Your task to perform on an android device: Search for "dell alienware" on bestbuy, select the first entry, and add it to the cart. Image 0: 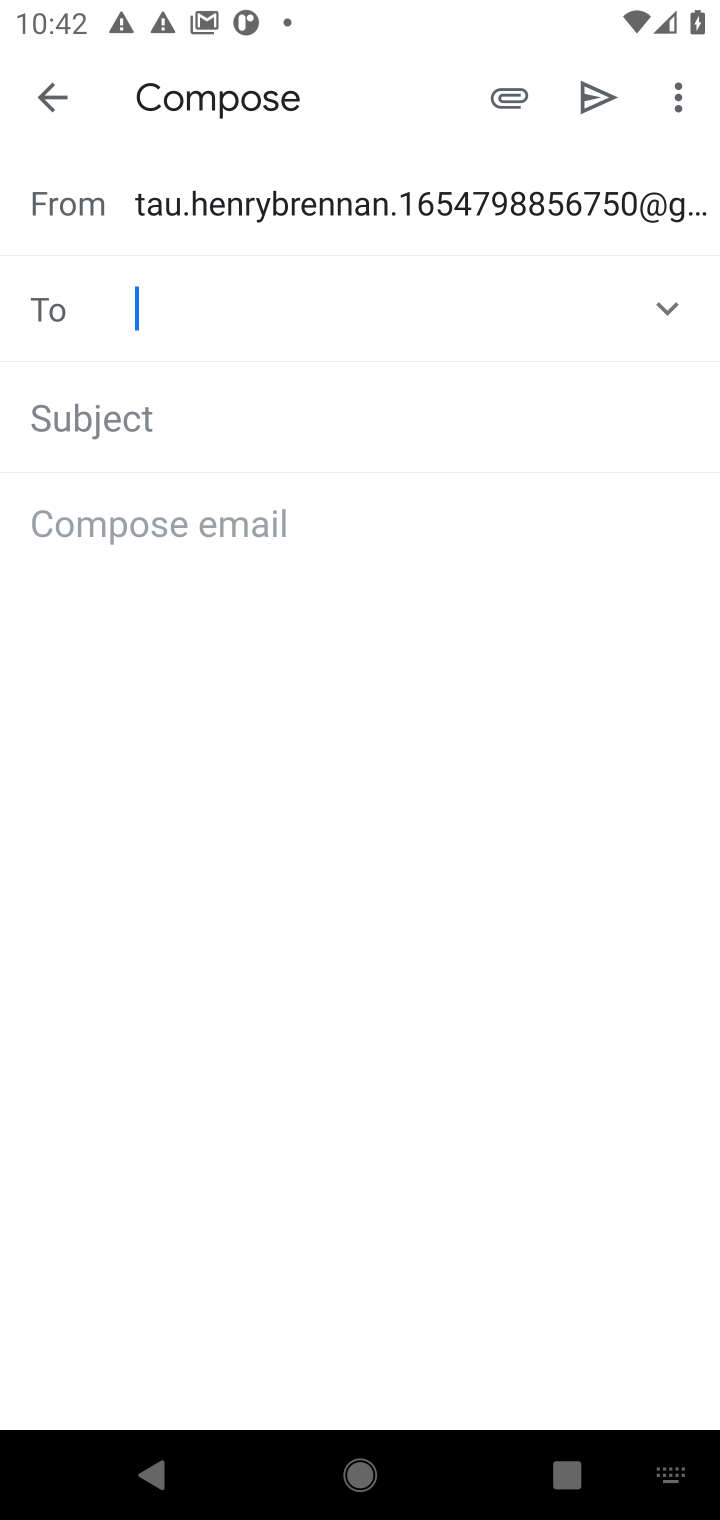
Step 0: press home button
Your task to perform on an android device: Search for "dell alienware" on bestbuy, select the first entry, and add it to the cart. Image 1: 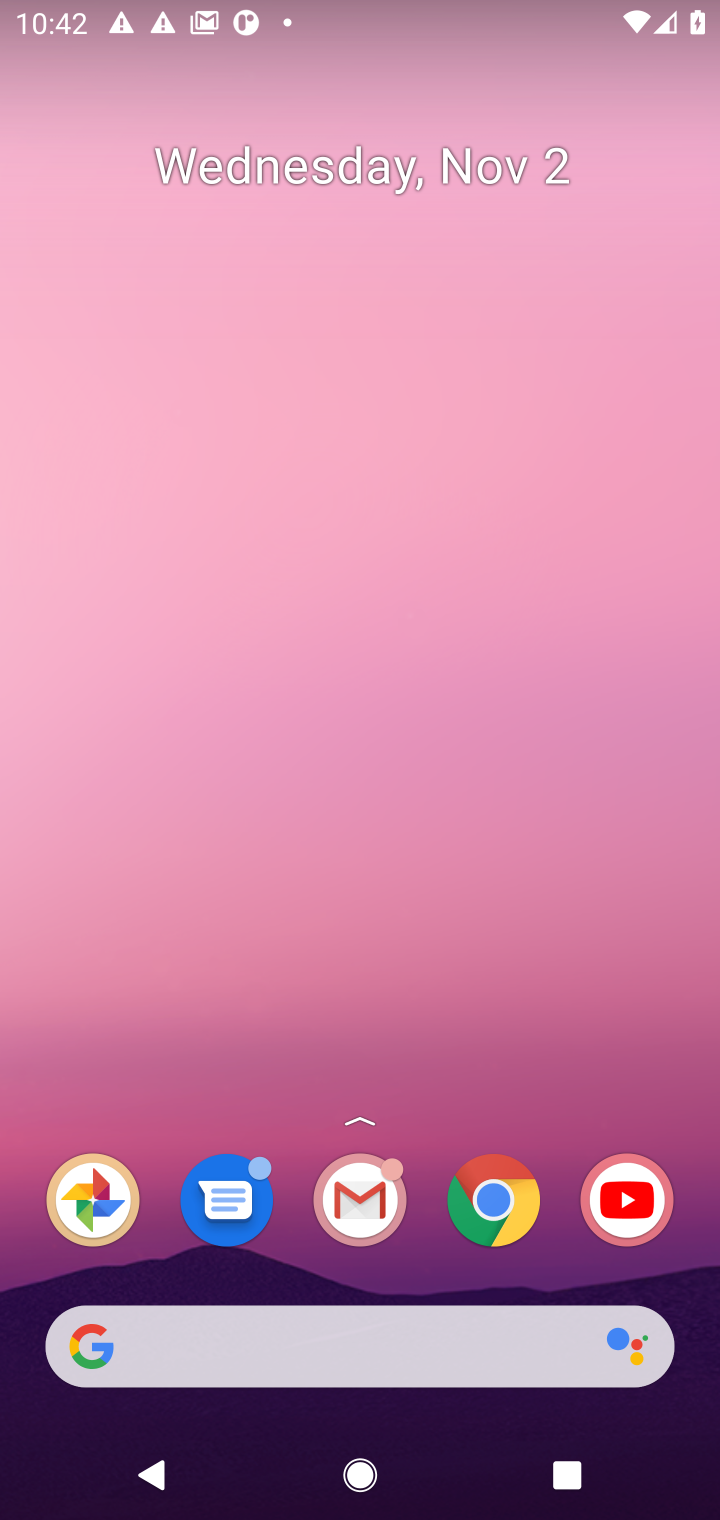
Step 1: click (520, 1216)
Your task to perform on an android device: Search for "dell alienware" on bestbuy, select the first entry, and add it to the cart. Image 2: 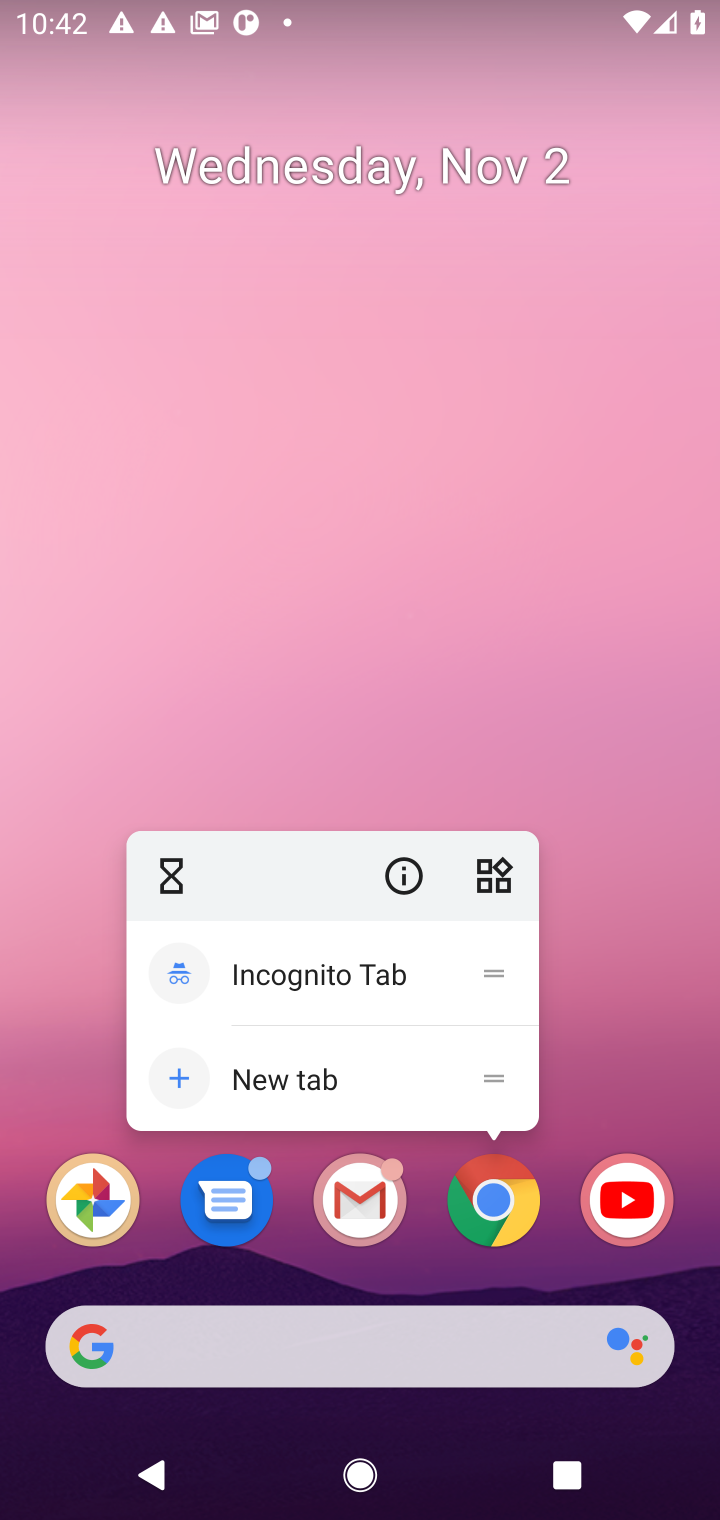
Step 2: click (519, 1215)
Your task to perform on an android device: Search for "dell alienware" on bestbuy, select the first entry, and add it to the cart. Image 3: 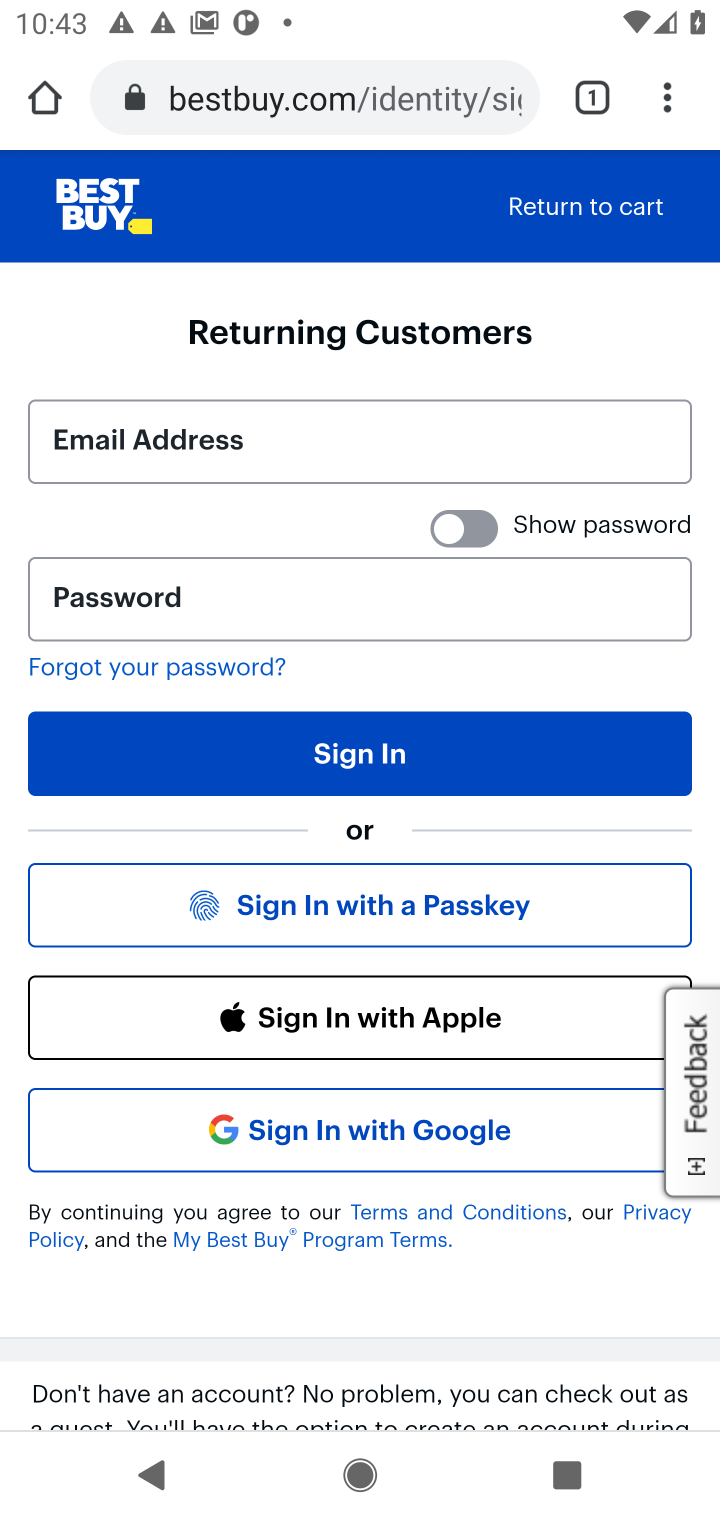
Step 3: click (421, 83)
Your task to perform on an android device: Search for "dell alienware" on bestbuy, select the first entry, and add it to the cart. Image 4: 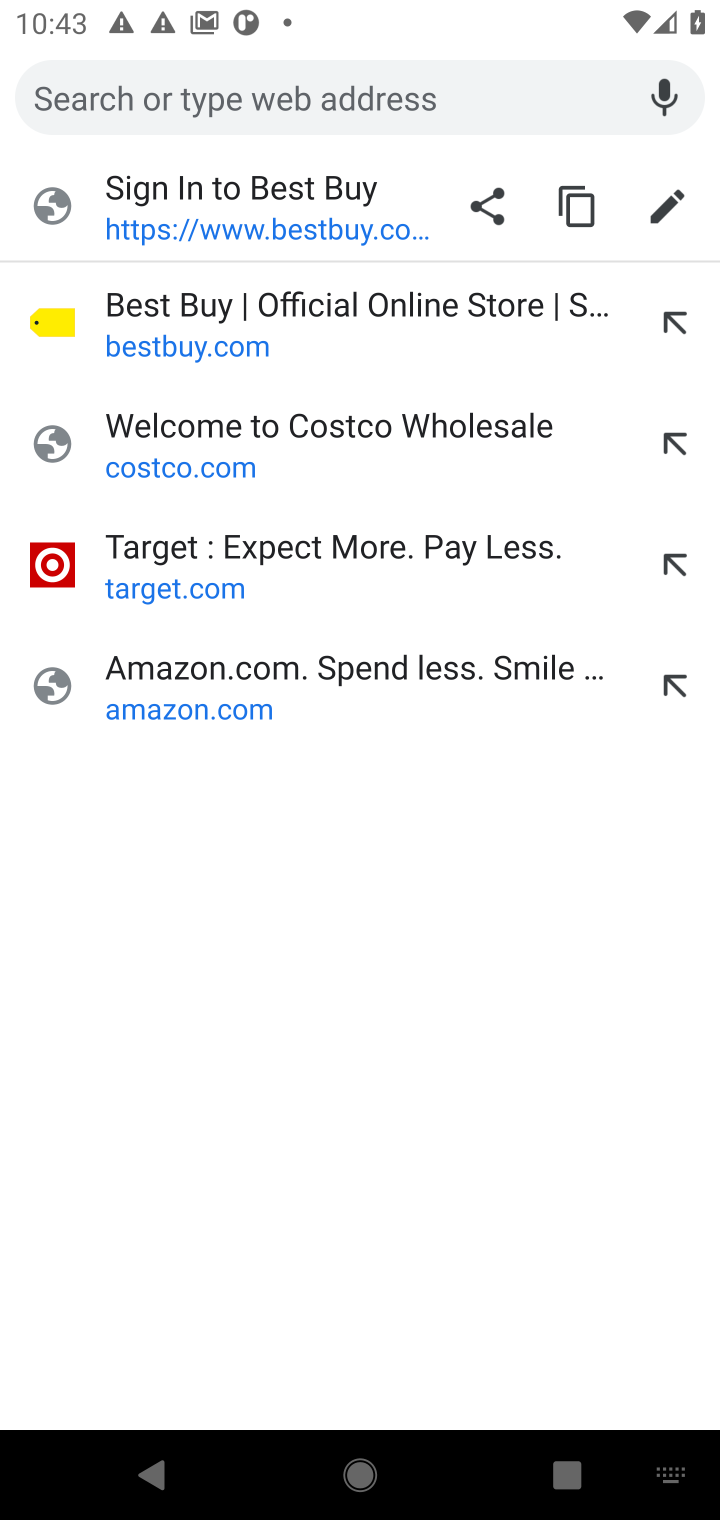
Step 4: click (183, 203)
Your task to perform on an android device: Search for "dell alienware" on bestbuy, select the first entry, and add it to the cart. Image 5: 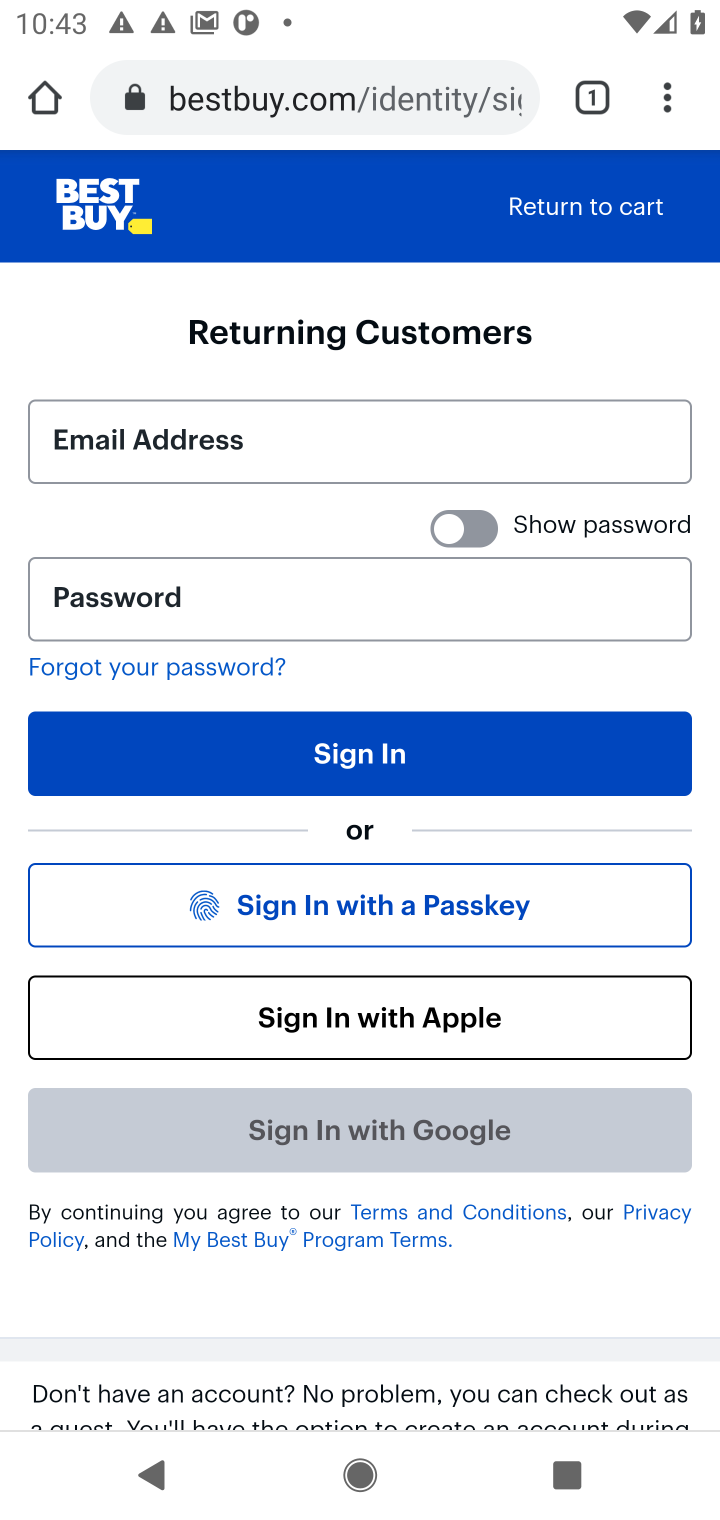
Step 5: press back button
Your task to perform on an android device: Search for "dell alienware" on bestbuy, select the first entry, and add it to the cart. Image 6: 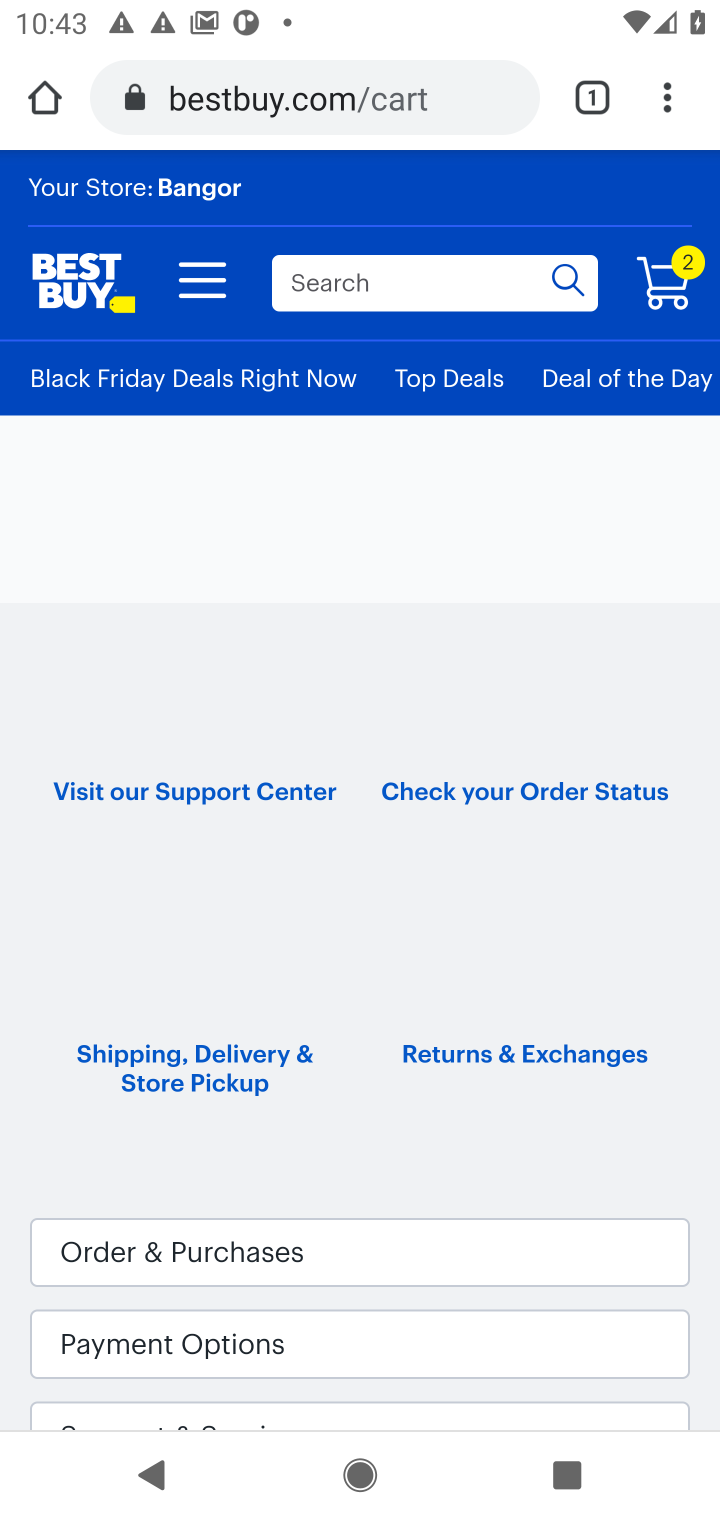
Step 6: click (429, 286)
Your task to perform on an android device: Search for "dell alienware" on bestbuy, select the first entry, and add it to the cart. Image 7: 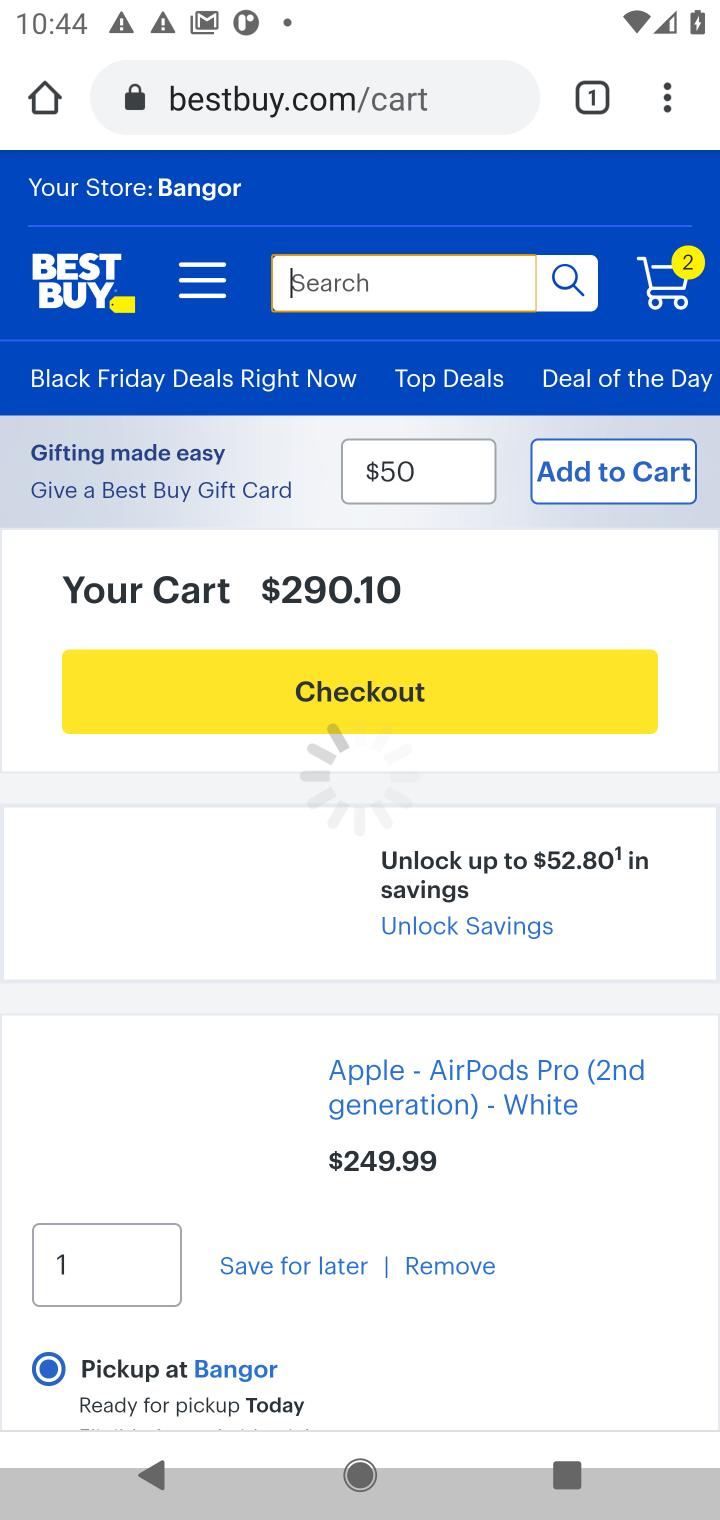
Step 7: click (405, 273)
Your task to perform on an android device: Search for "dell alienware" on bestbuy, select the first entry, and add it to the cart. Image 8: 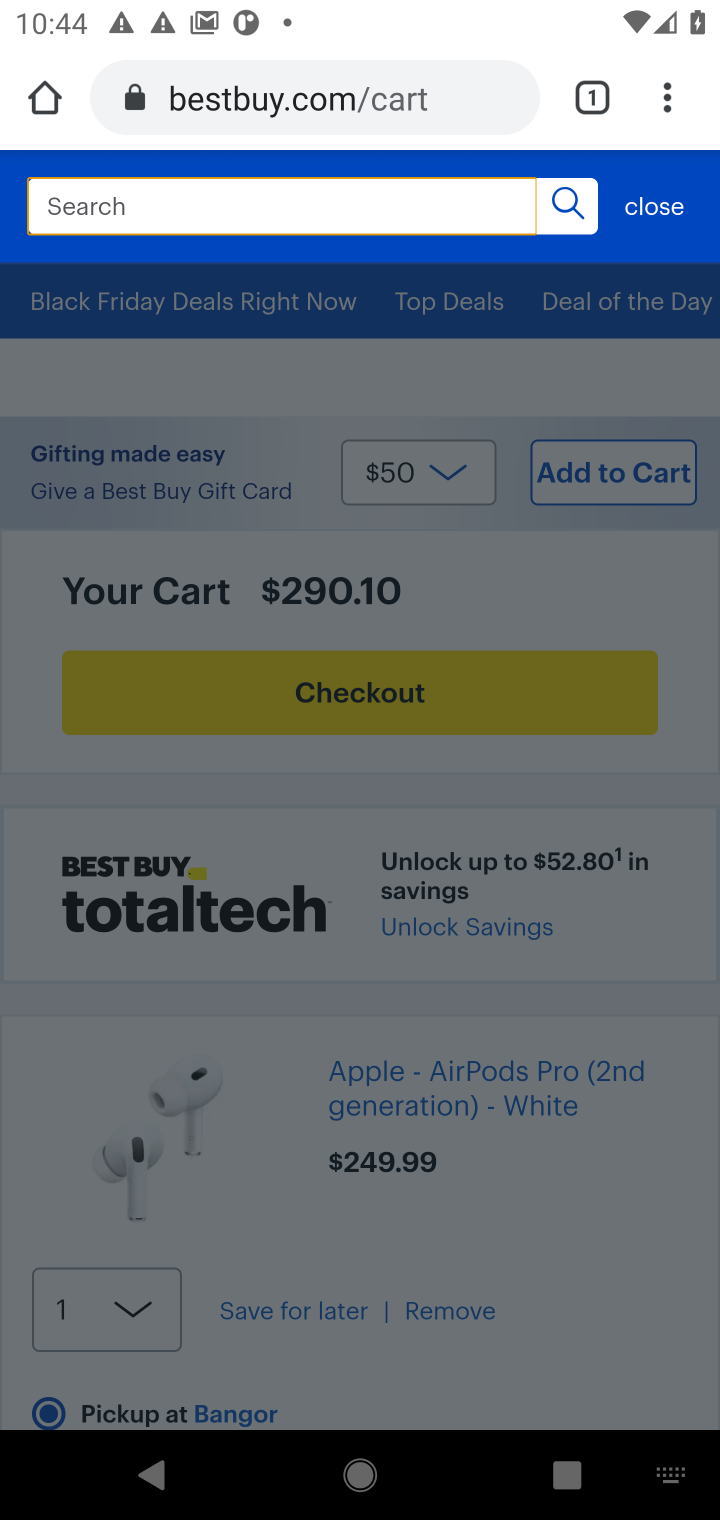
Step 8: type "dell alienware"
Your task to perform on an android device: Search for "dell alienware" on bestbuy, select the first entry, and add it to the cart. Image 9: 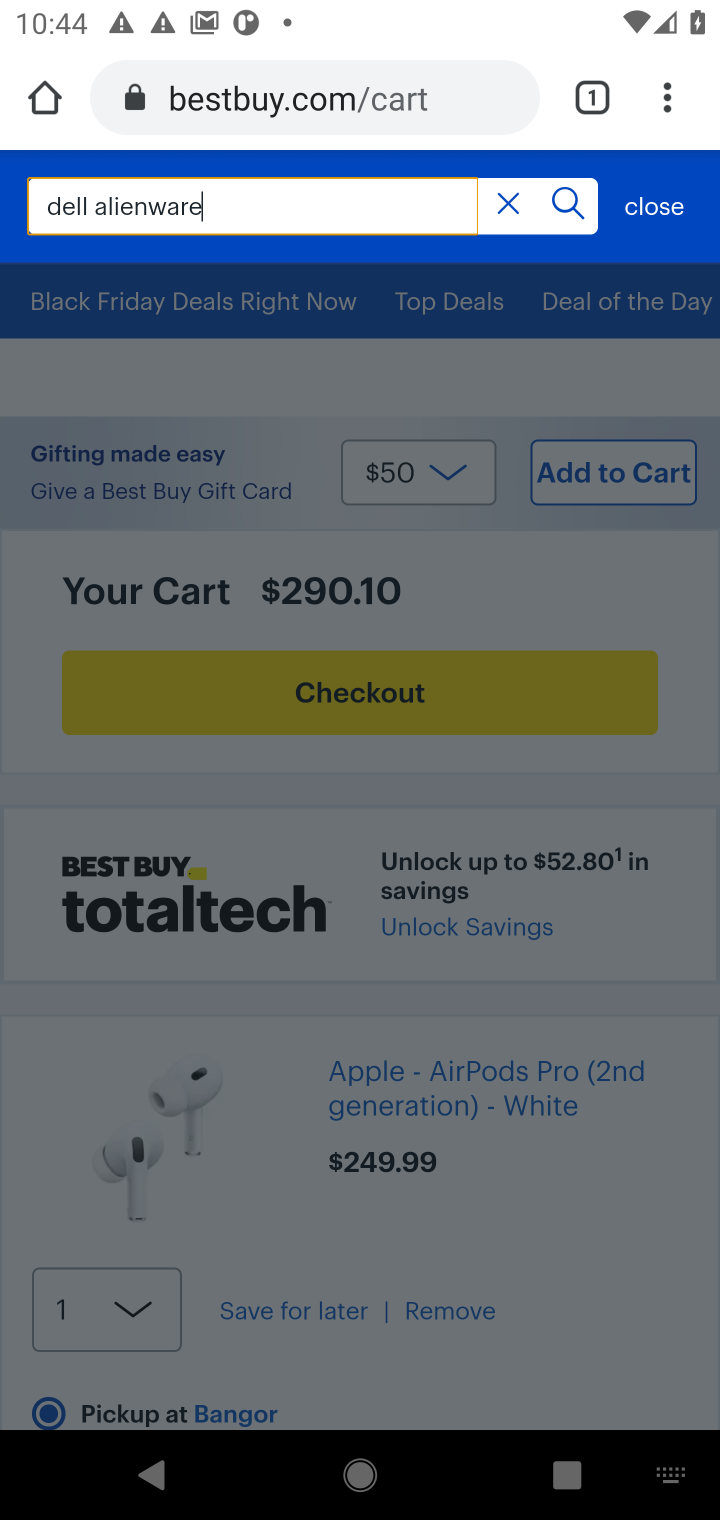
Step 9: press enter
Your task to perform on an android device: Search for "dell alienware" on bestbuy, select the first entry, and add it to the cart. Image 10: 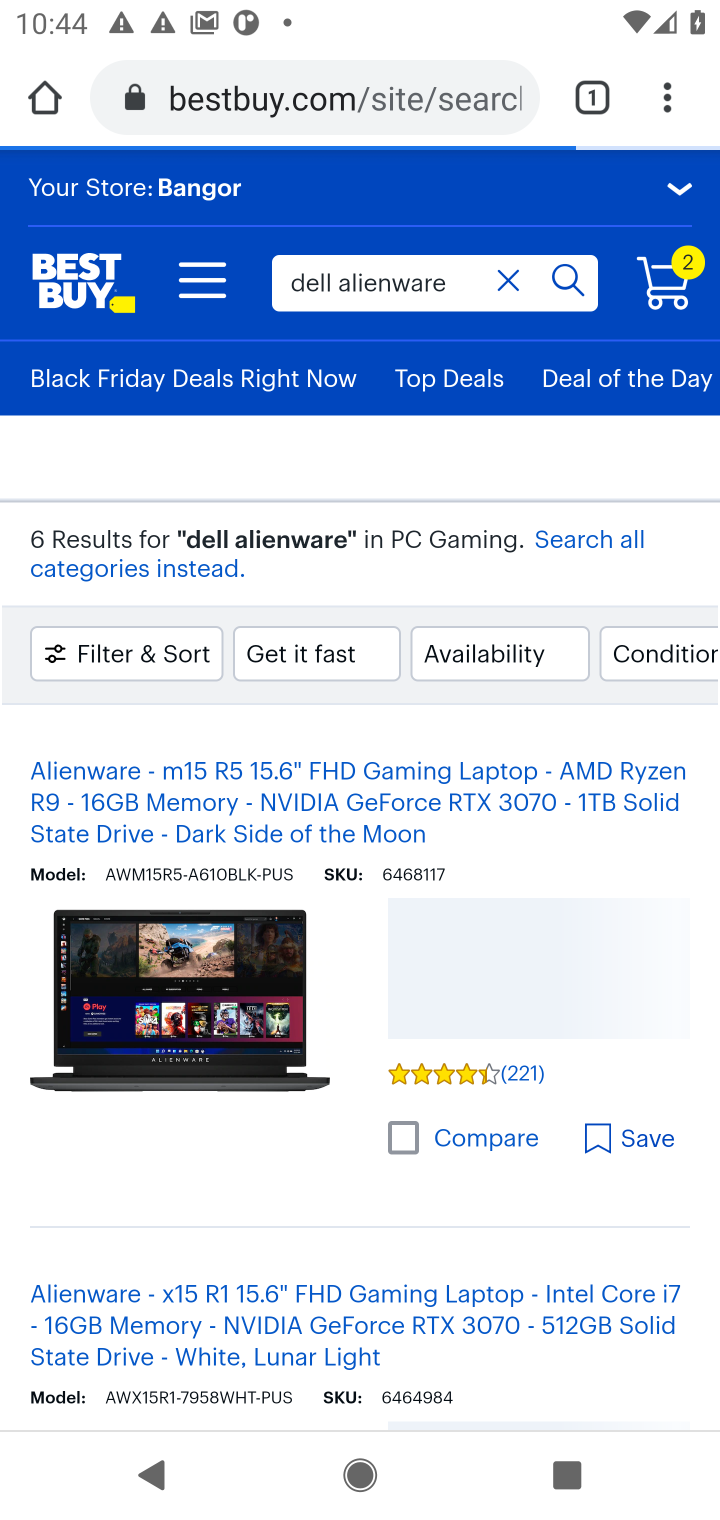
Step 10: drag from (454, 1270) to (456, 581)
Your task to perform on an android device: Search for "dell alienware" on bestbuy, select the first entry, and add it to the cart. Image 11: 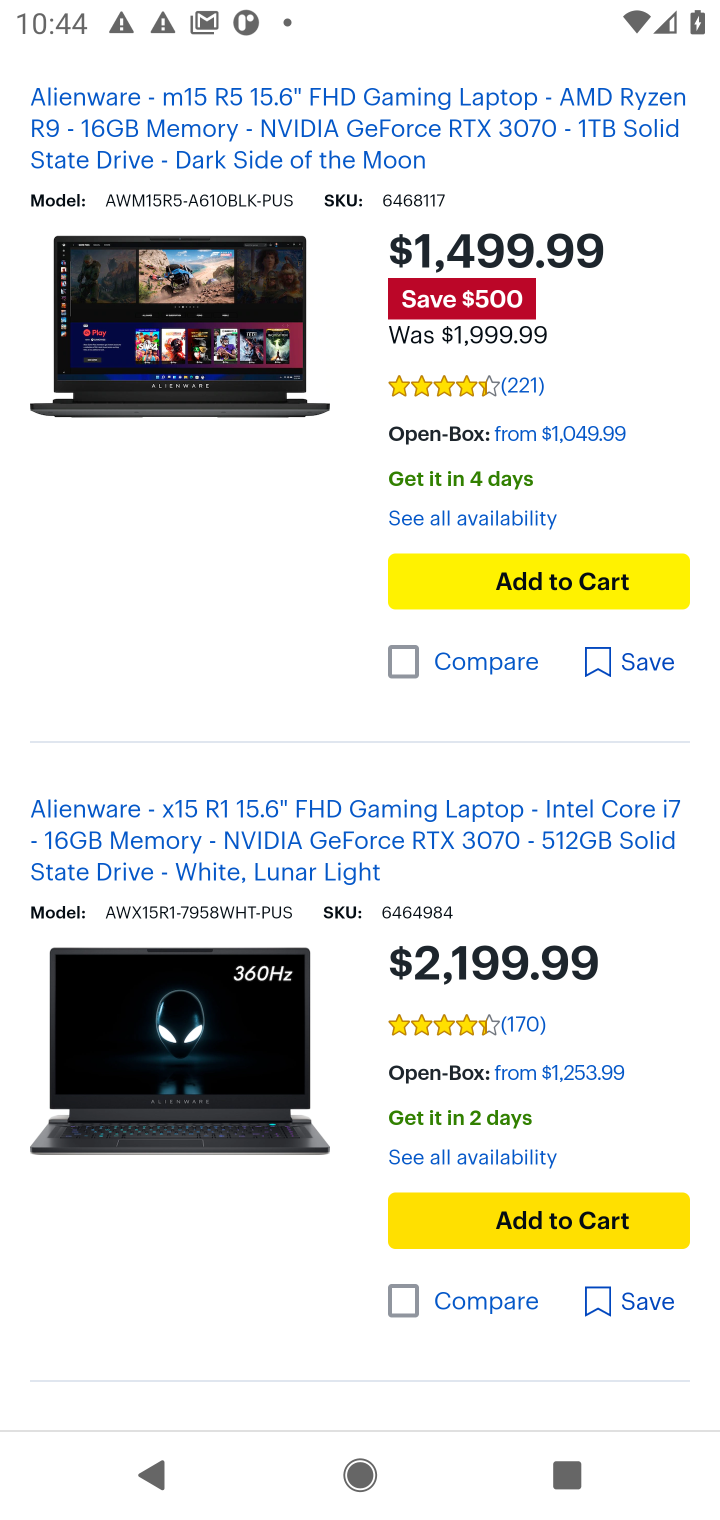
Step 11: drag from (456, 904) to (456, 426)
Your task to perform on an android device: Search for "dell alienware" on bestbuy, select the first entry, and add it to the cart. Image 12: 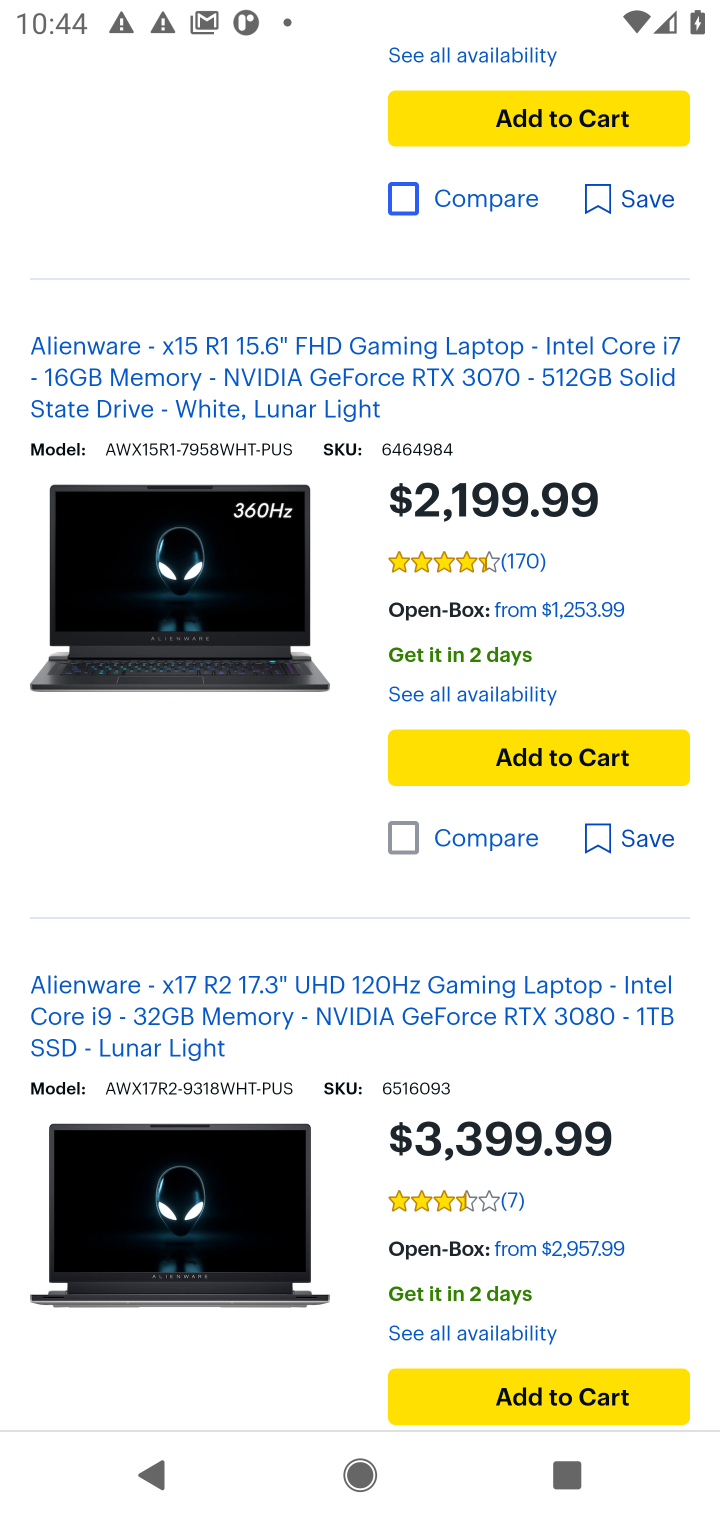
Step 12: drag from (489, 1093) to (526, 314)
Your task to perform on an android device: Search for "dell alienware" on bestbuy, select the first entry, and add it to the cart. Image 13: 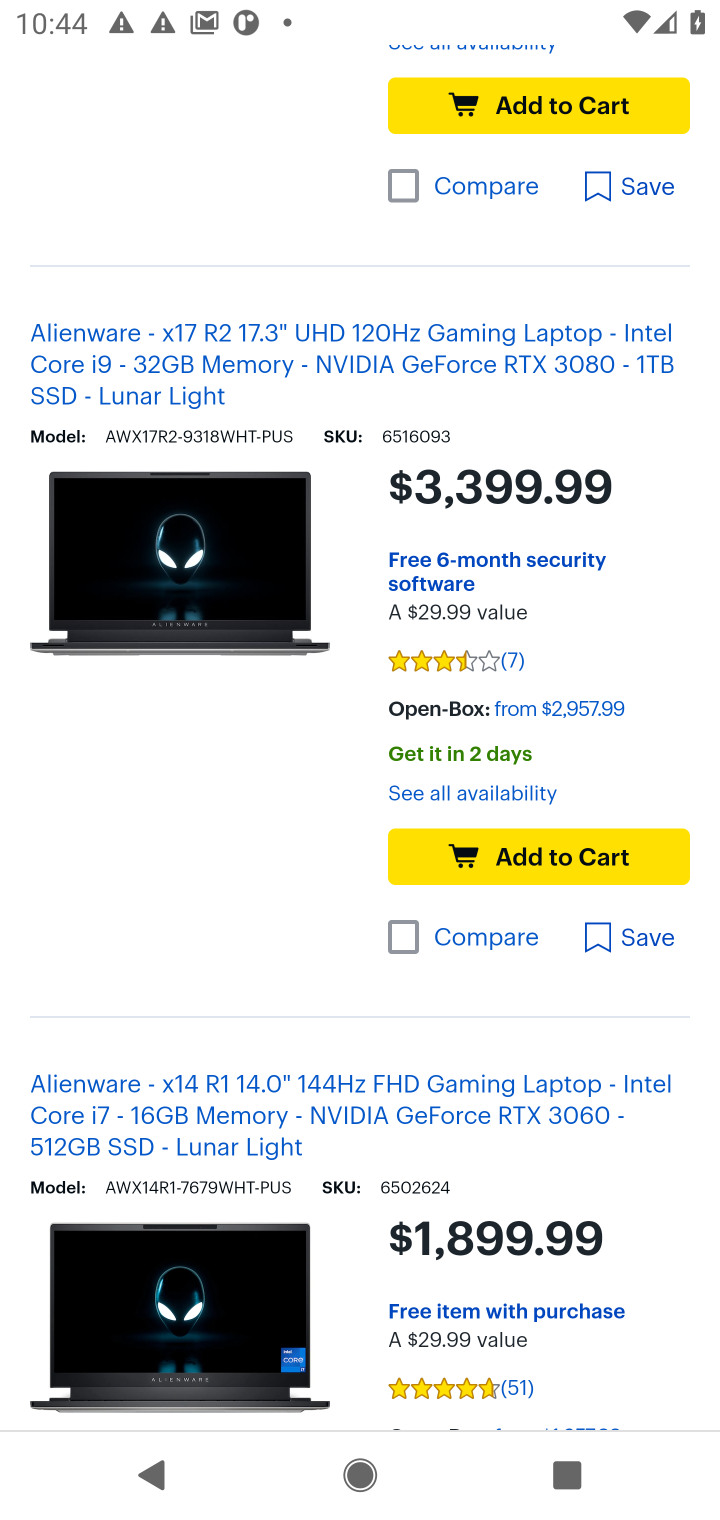
Step 13: drag from (355, 1099) to (395, 434)
Your task to perform on an android device: Search for "dell alienware" on bestbuy, select the first entry, and add it to the cart. Image 14: 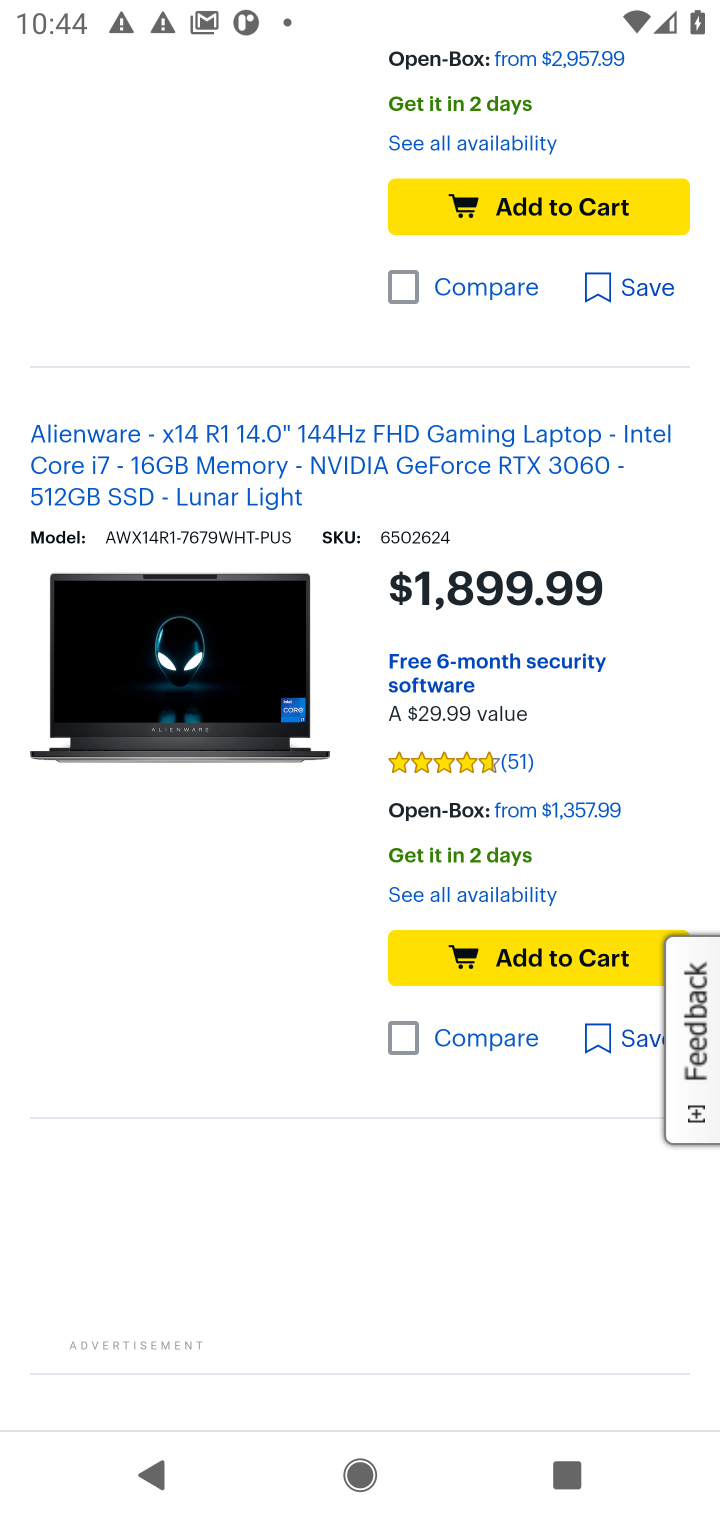
Step 14: drag from (267, 990) to (302, 471)
Your task to perform on an android device: Search for "dell alienware" on bestbuy, select the first entry, and add it to the cart. Image 15: 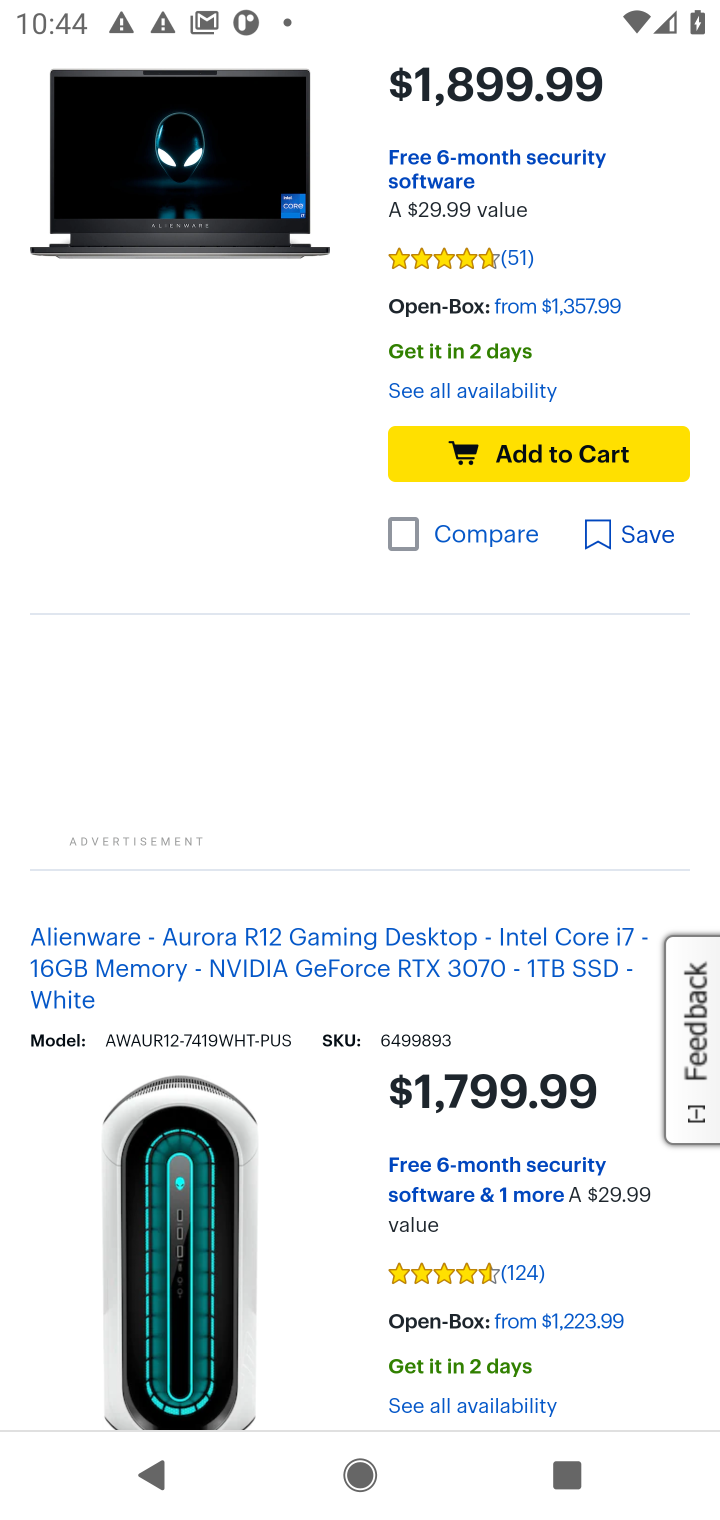
Step 15: drag from (218, 662) to (342, 1167)
Your task to perform on an android device: Search for "dell alienware" on bestbuy, select the first entry, and add it to the cart. Image 16: 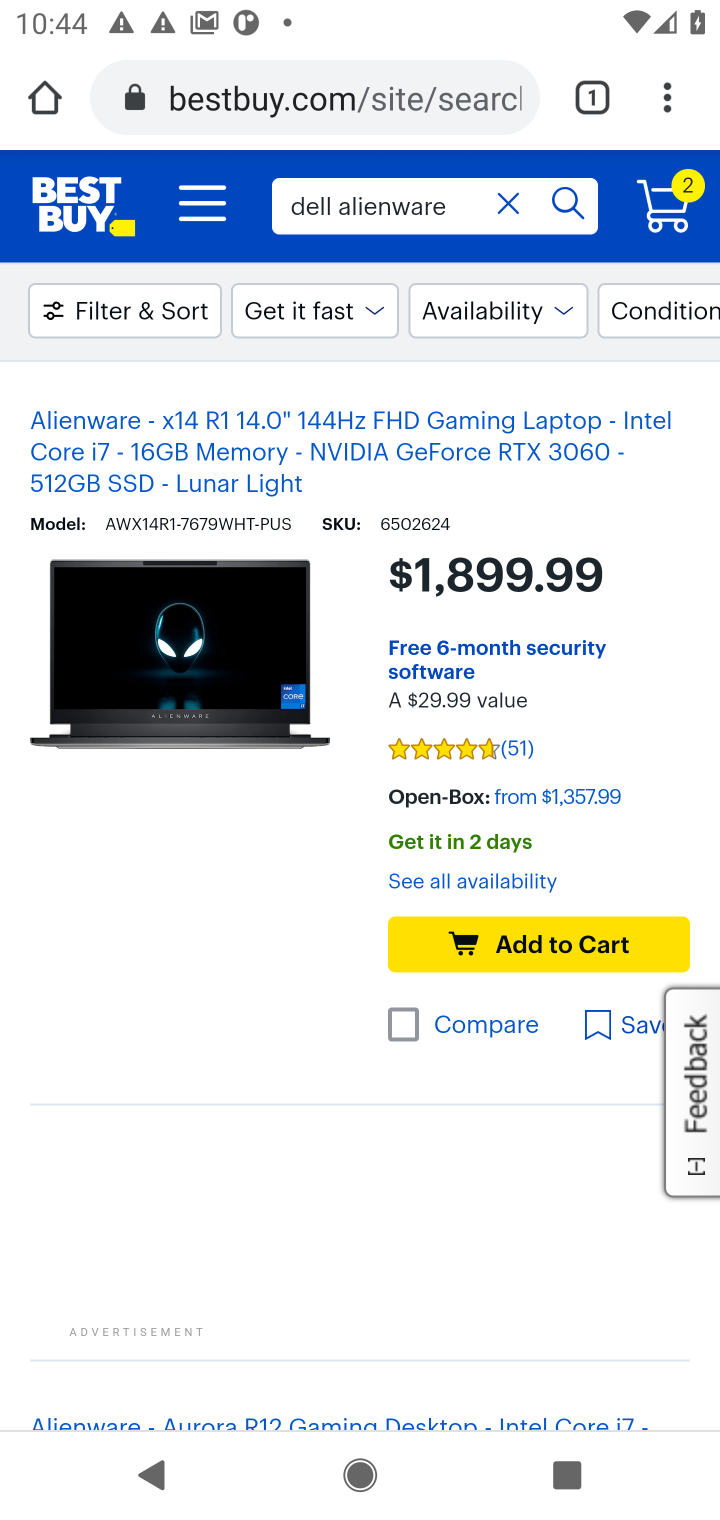
Step 16: drag from (276, 447) to (327, 1225)
Your task to perform on an android device: Search for "dell alienware" on bestbuy, select the first entry, and add it to the cart. Image 17: 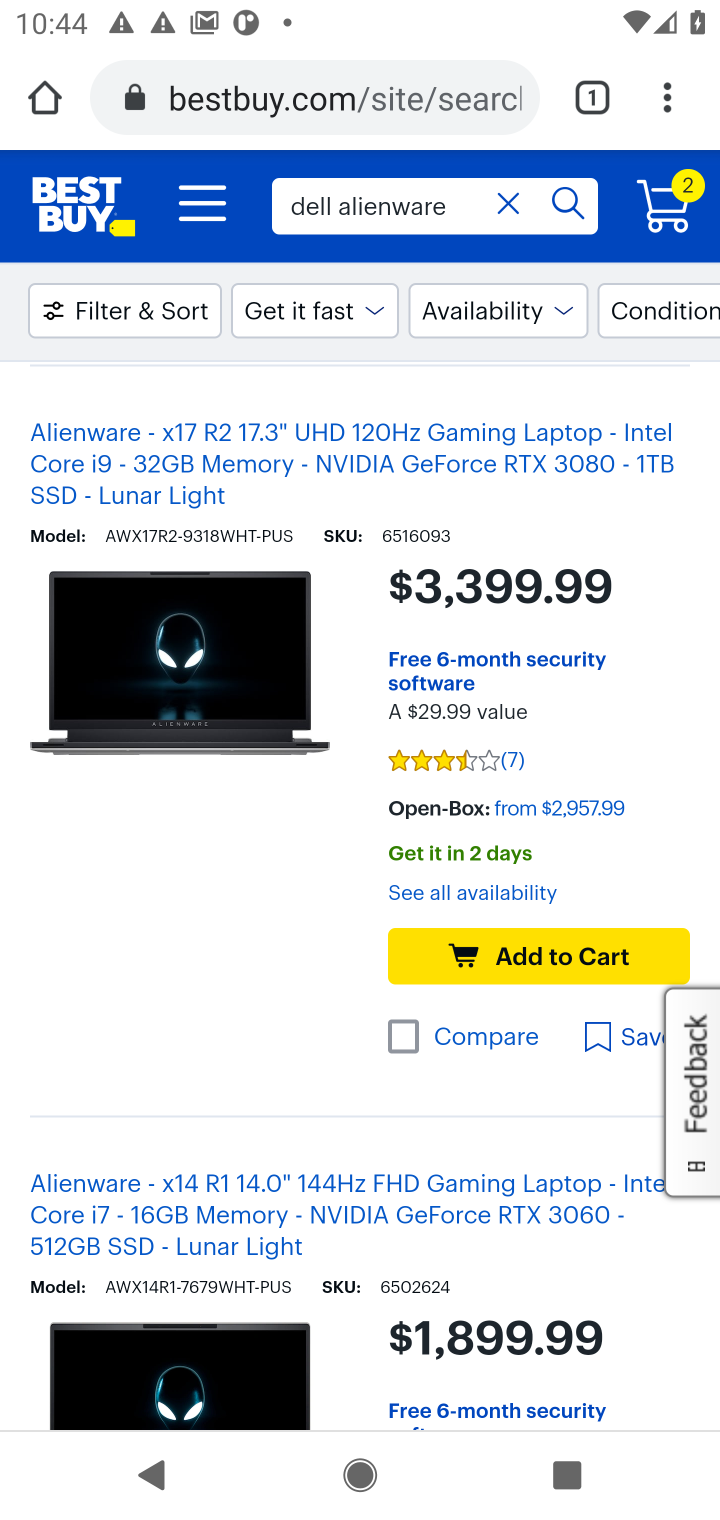
Step 17: drag from (309, 580) to (375, 1292)
Your task to perform on an android device: Search for "dell alienware" on bestbuy, select the first entry, and add it to the cart. Image 18: 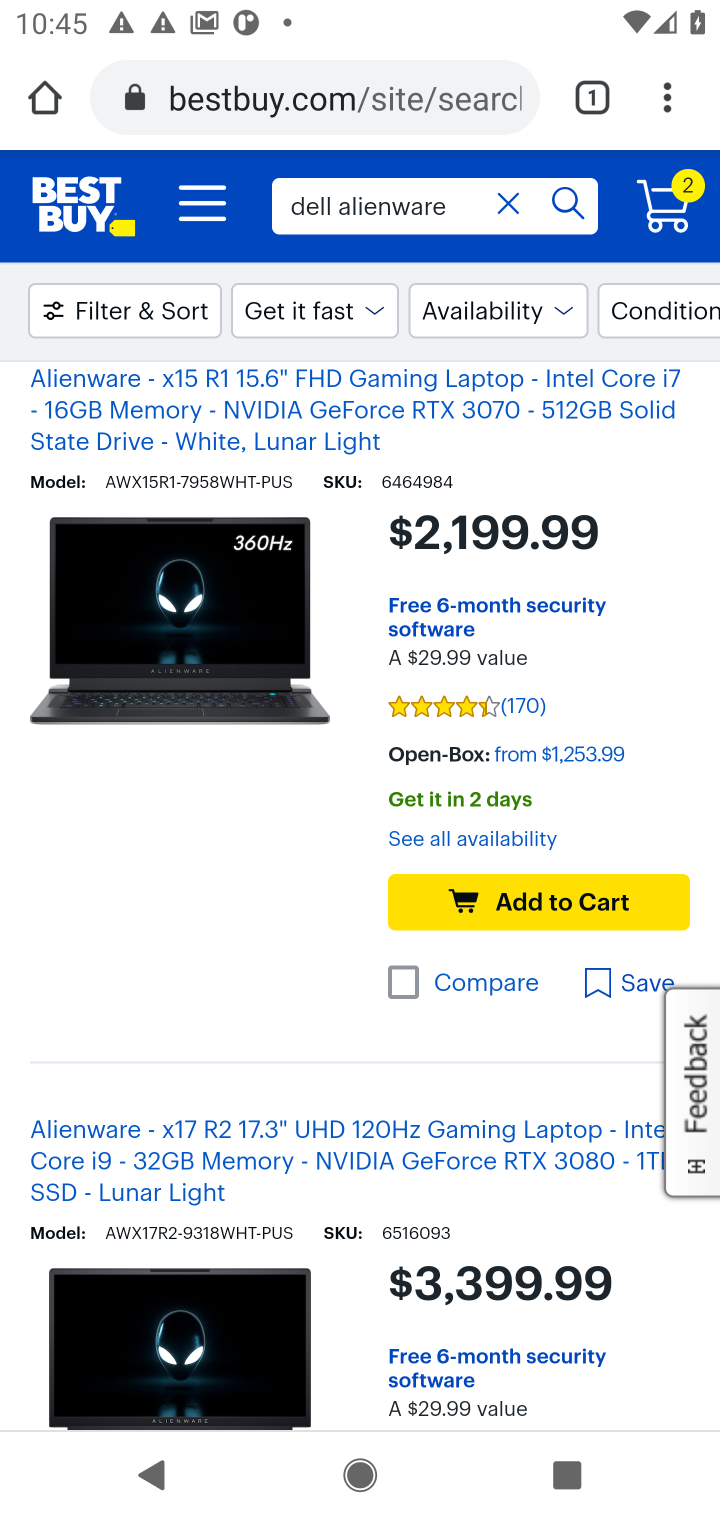
Step 18: drag from (132, 581) to (157, 1275)
Your task to perform on an android device: Search for "dell alienware" on bestbuy, select the first entry, and add it to the cart. Image 19: 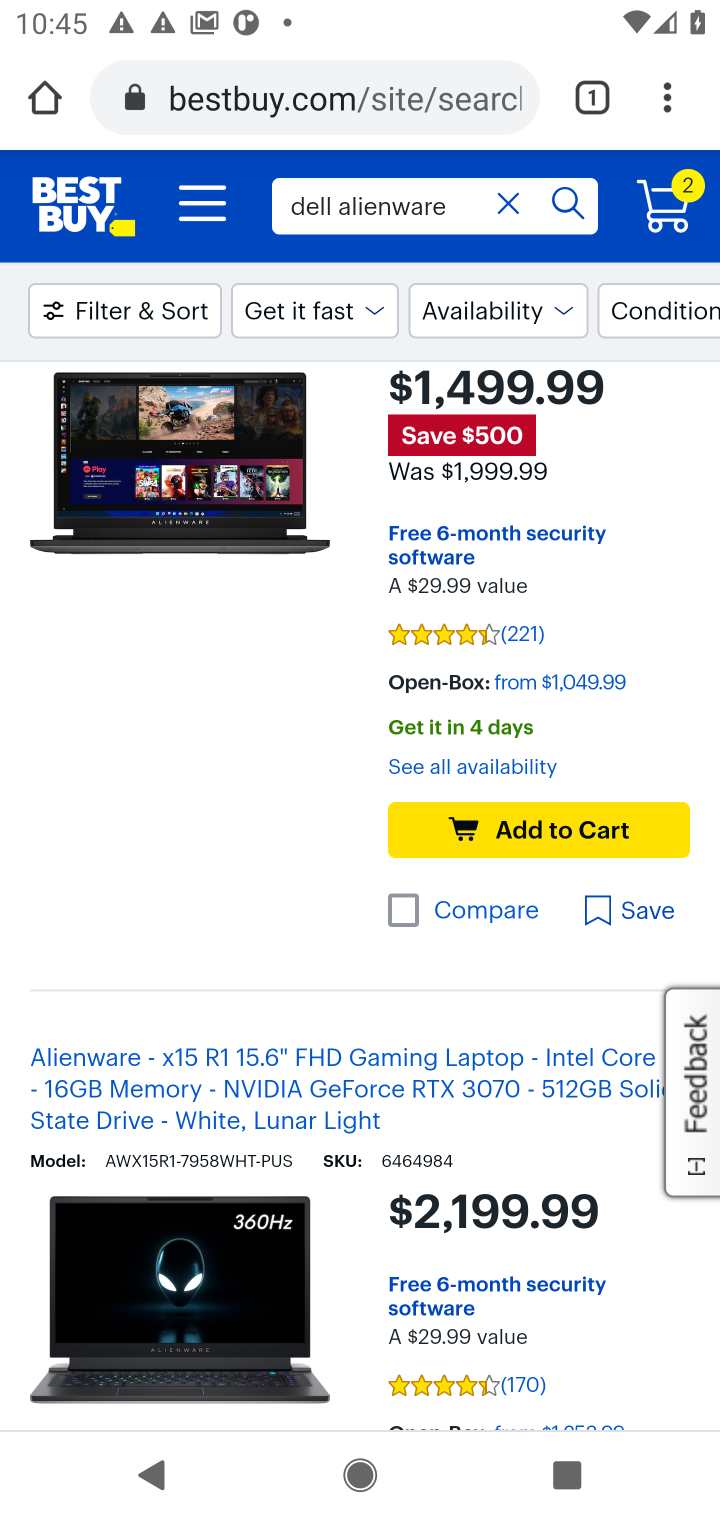
Step 19: drag from (225, 973) to (294, 1238)
Your task to perform on an android device: Search for "dell alienware" on bestbuy, select the first entry, and add it to the cart. Image 20: 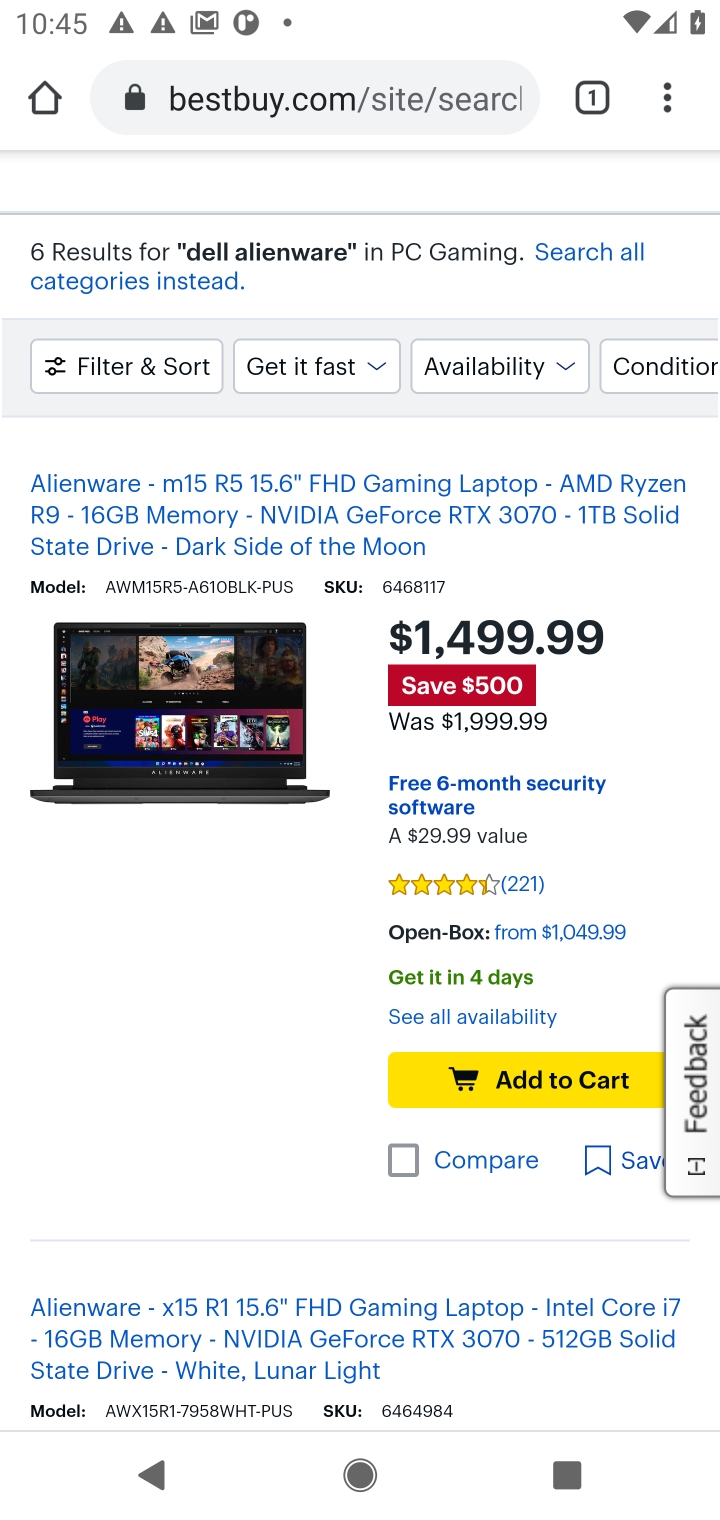
Step 20: click (177, 807)
Your task to perform on an android device: Search for "dell alienware" on bestbuy, select the first entry, and add it to the cart. Image 21: 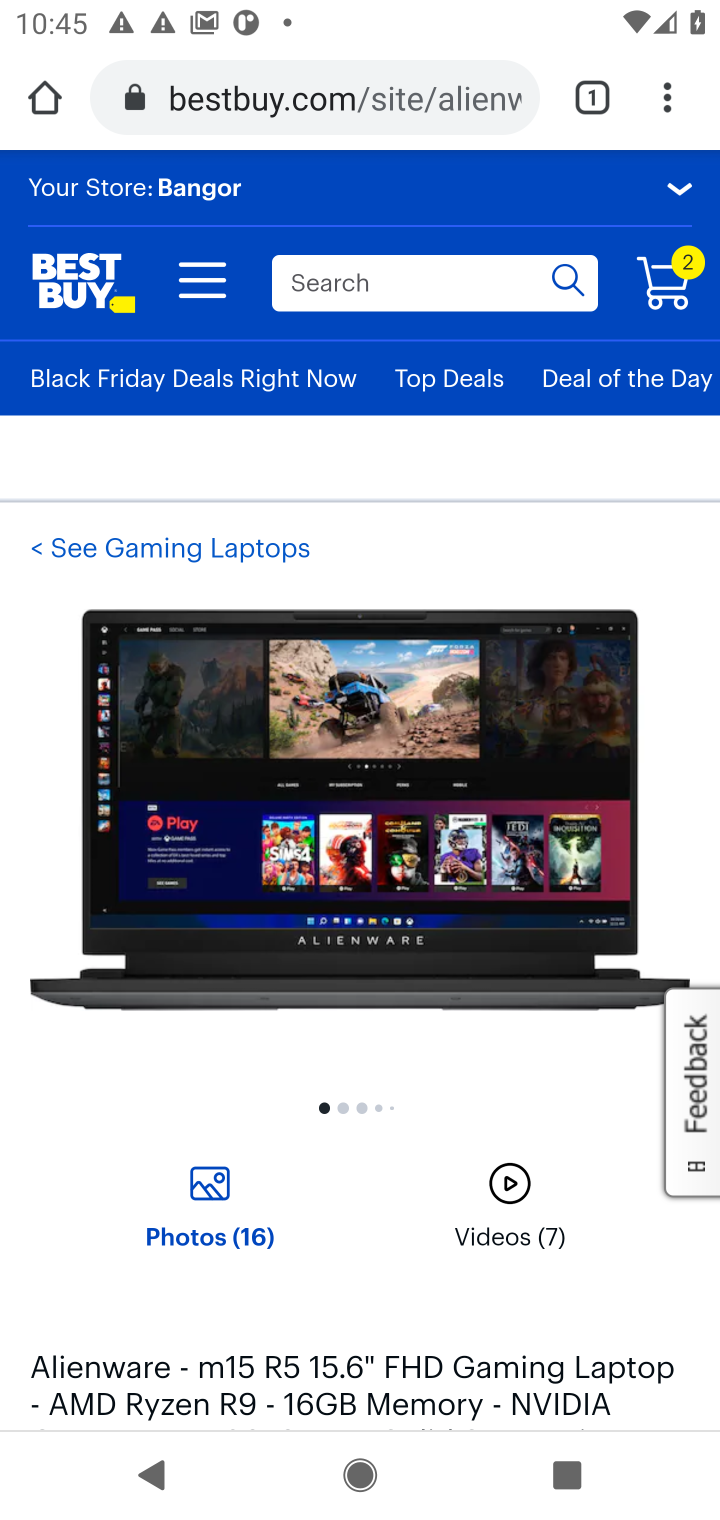
Step 21: drag from (395, 1182) to (373, 544)
Your task to perform on an android device: Search for "dell alienware" on bestbuy, select the first entry, and add it to the cart. Image 22: 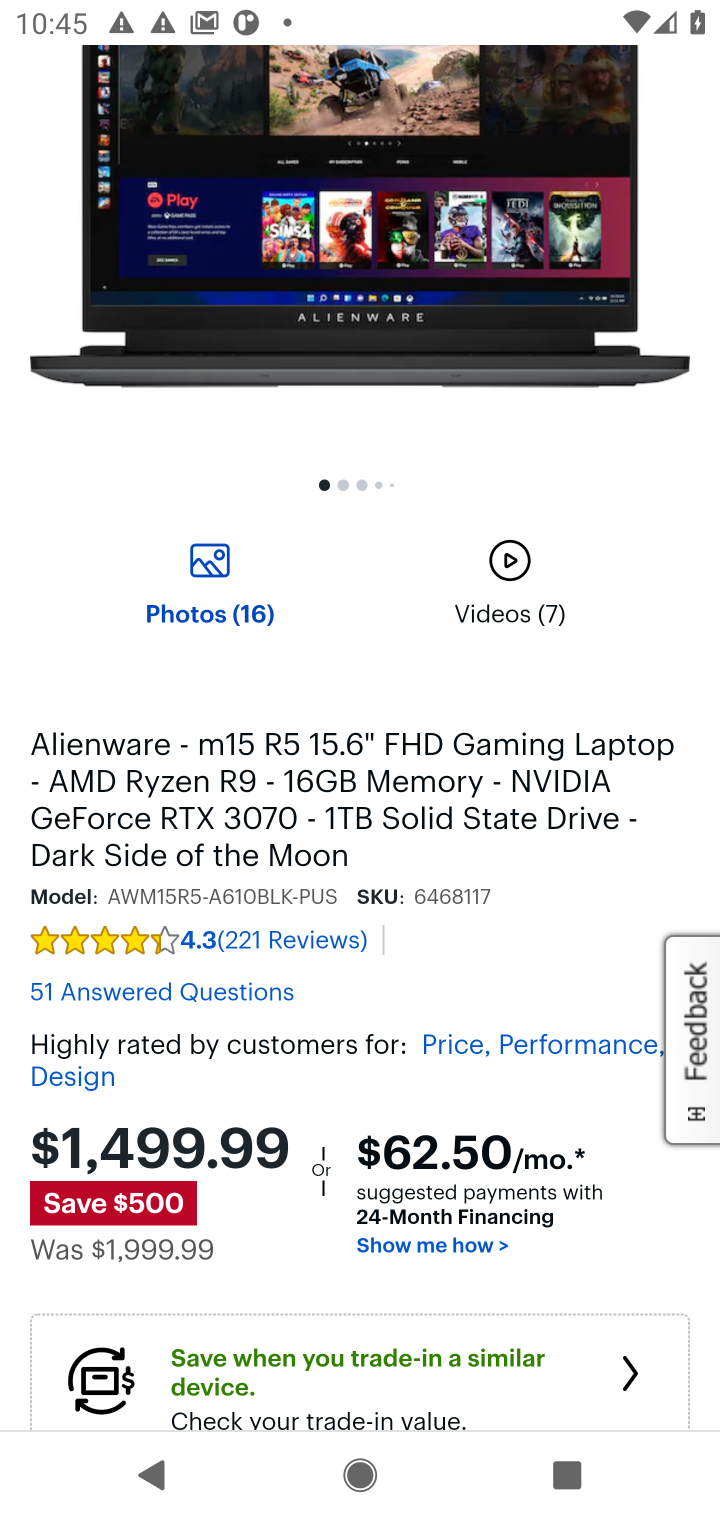
Step 22: drag from (493, 776) to (598, 270)
Your task to perform on an android device: Search for "dell alienware" on bestbuy, select the first entry, and add it to the cart. Image 23: 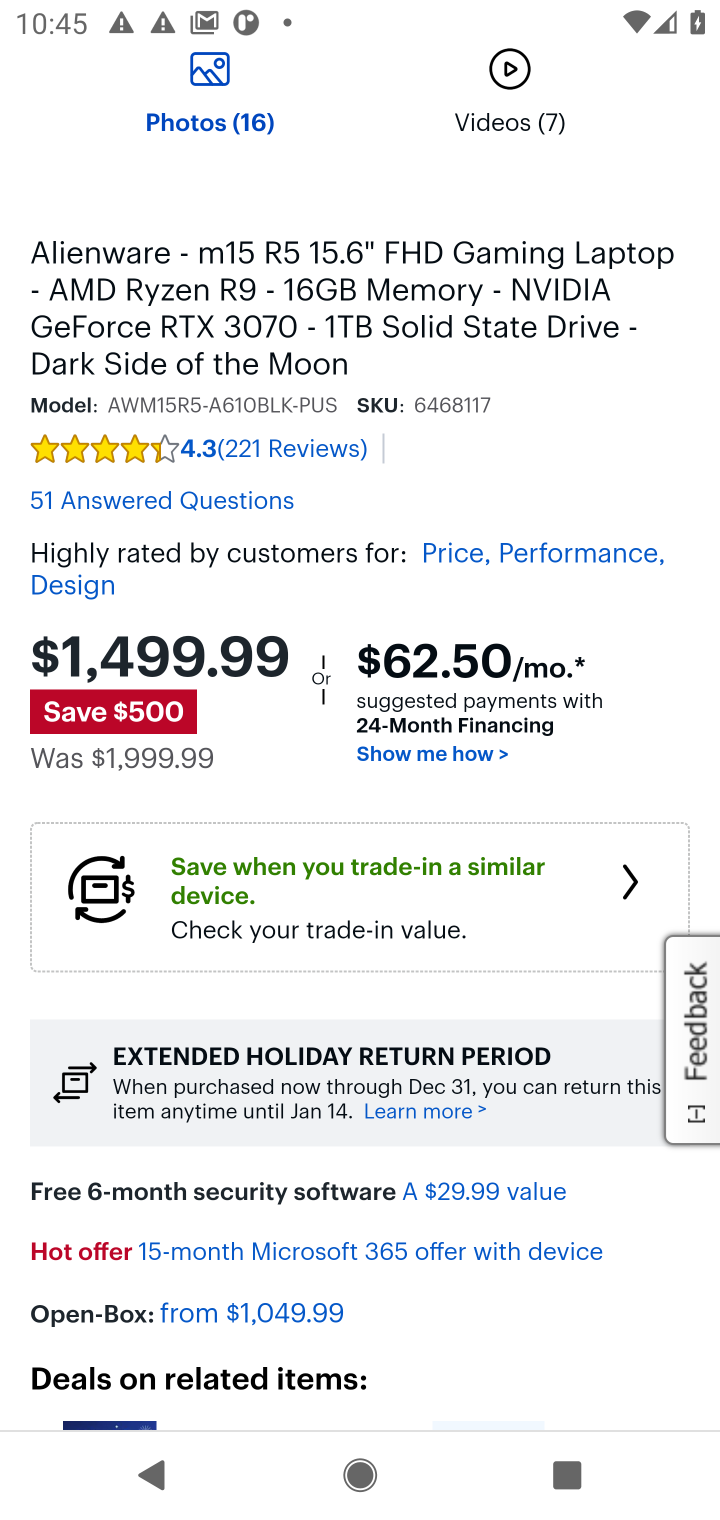
Step 23: drag from (603, 1172) to (640, 513)
Your task to perform on an android device: Search for "dell alienware" on bestbuy, select the first entry, and add it to the cart. Image 24: 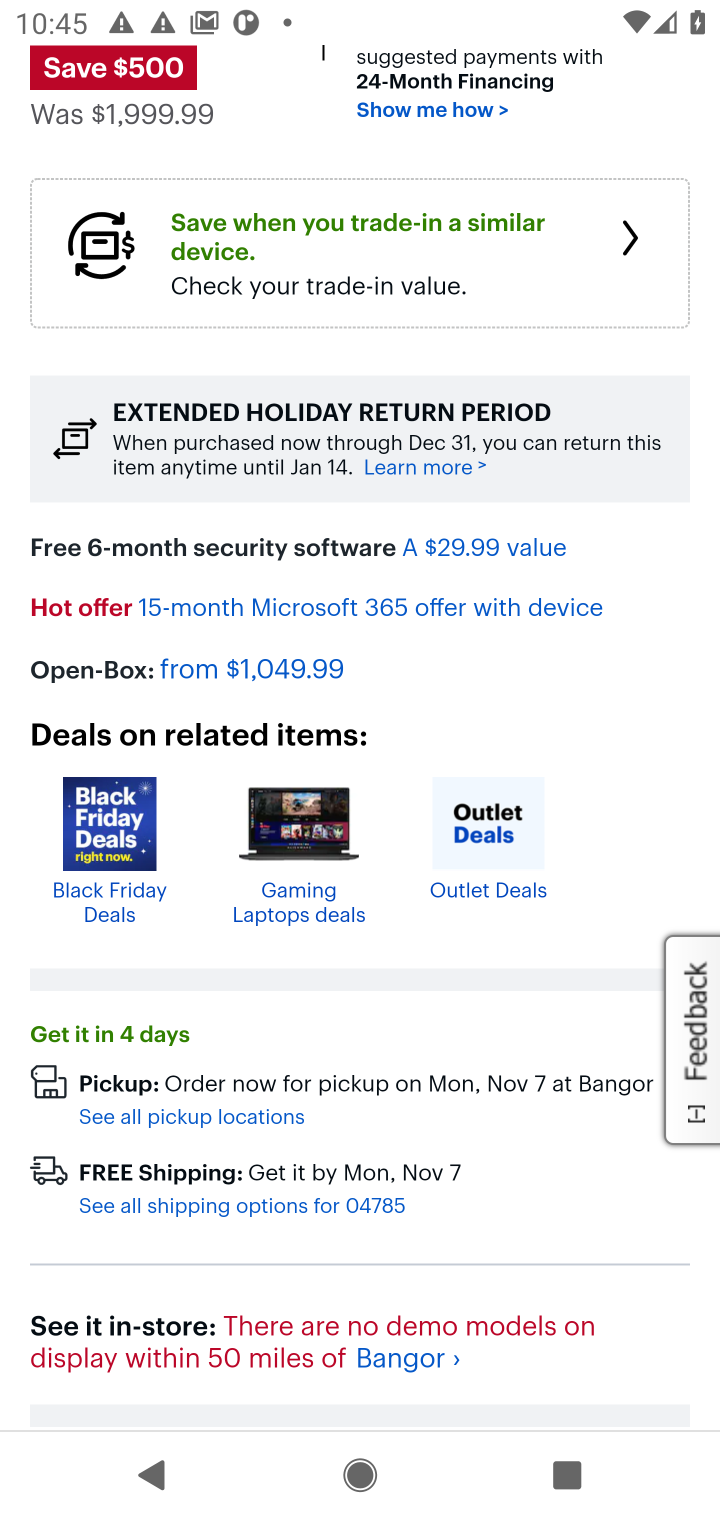
Step 24: drag from (649, 1232) to (616, 692)
Your task to perform on an android device: Search for "dell alienware" on bestbuy, select the first entry, and add it to the cart. Image 25: 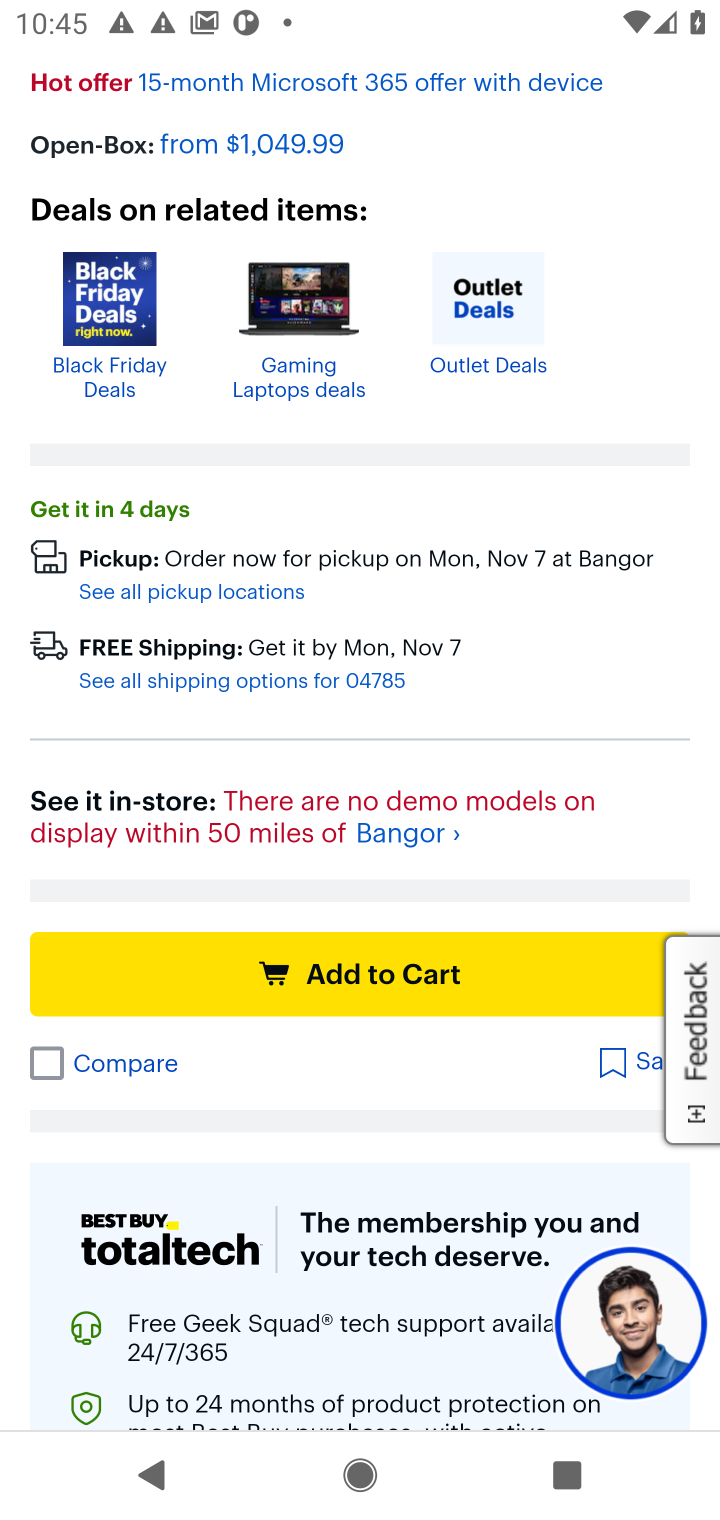
Step 25: click (430, 973)
Your task to perform on an android device: Search for "dell alienware" on bestbuy, select the first entry, and add it to the cart. Image 26: 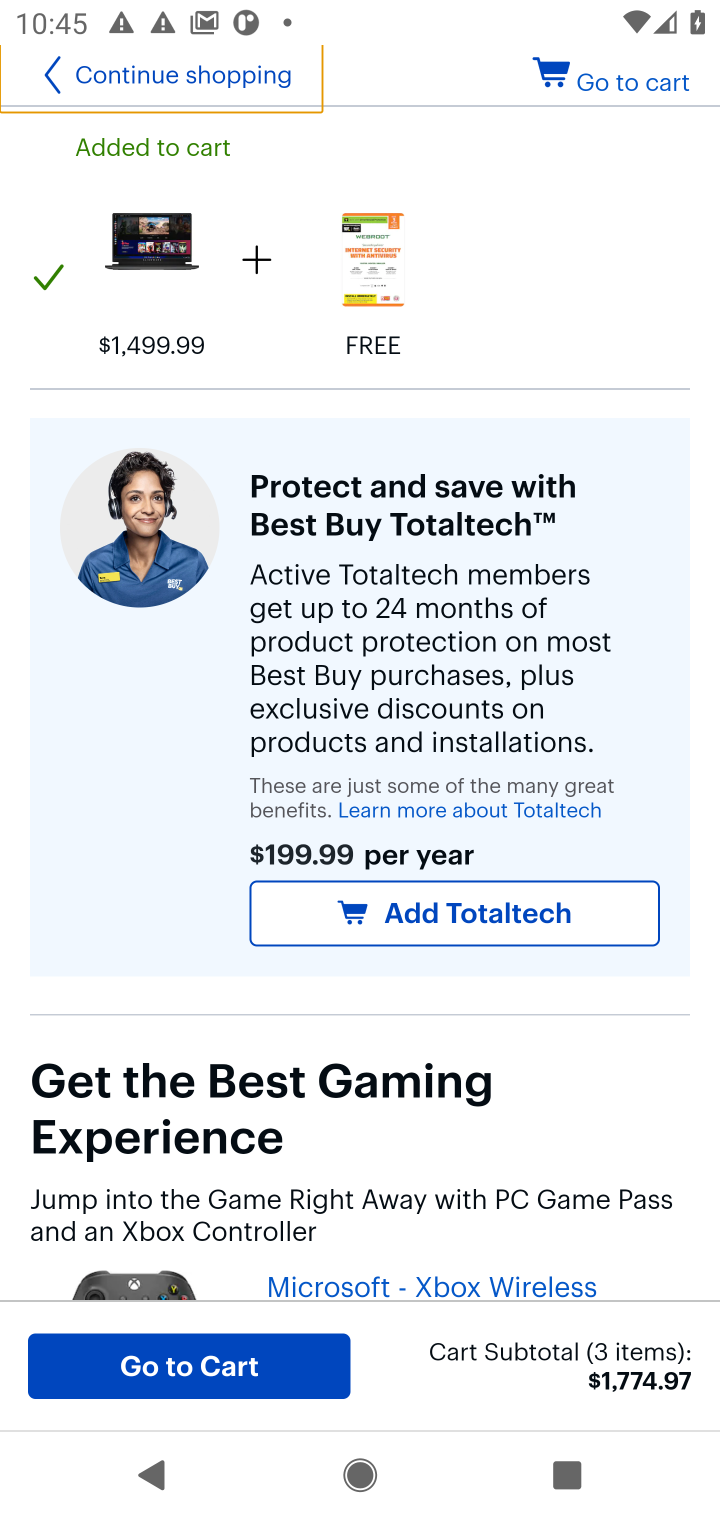
Step 26: task complete